Your task to perform on an android device: Go to sound settings Image 0: 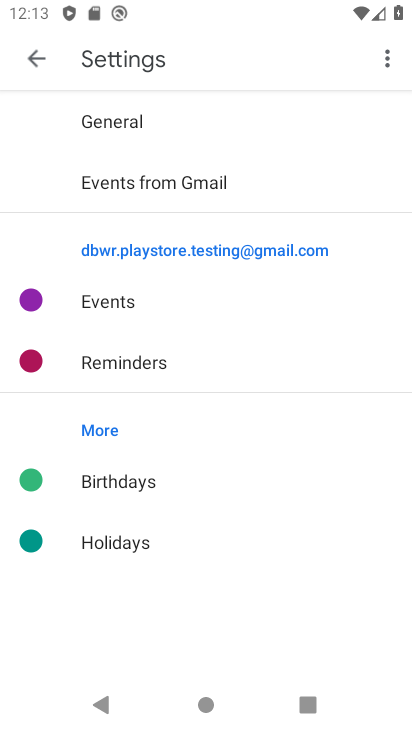
Step 0: press home button
Your task to perform on an android device: Go to sound settings Image 1: 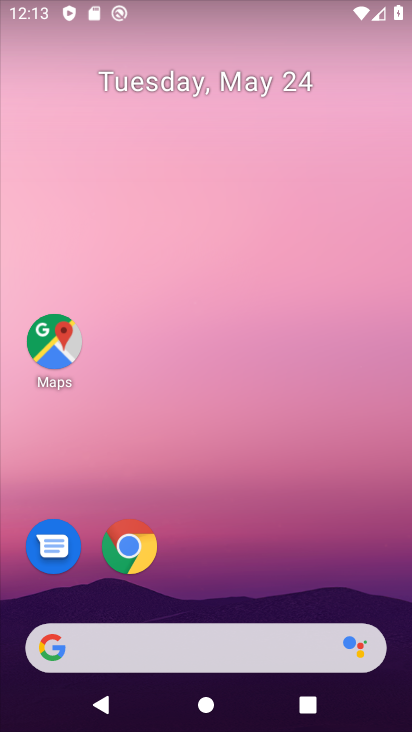
Step 1: drag from (255, 559) to (252, 100)
Your task to perform on an android device: Go to sound settings Image 2: 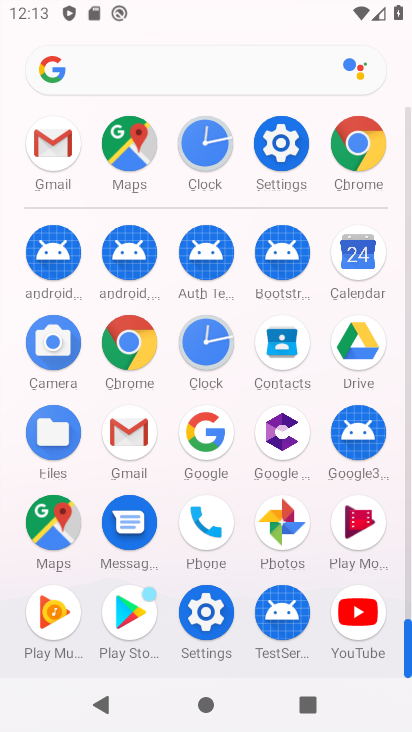
Step 2: click (275, 122)
Your task to perform on an android device: Go to sound settings Image 3: 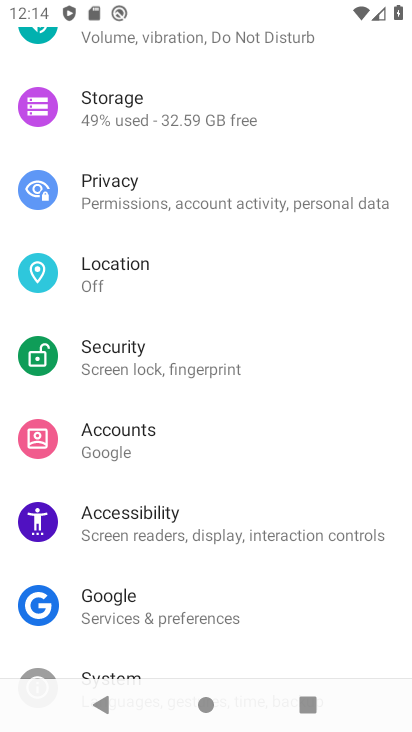
Step 3: drag from (307, 224) to (279, 719)
Your task to perform on an android device: Go to sound settings Image 4: 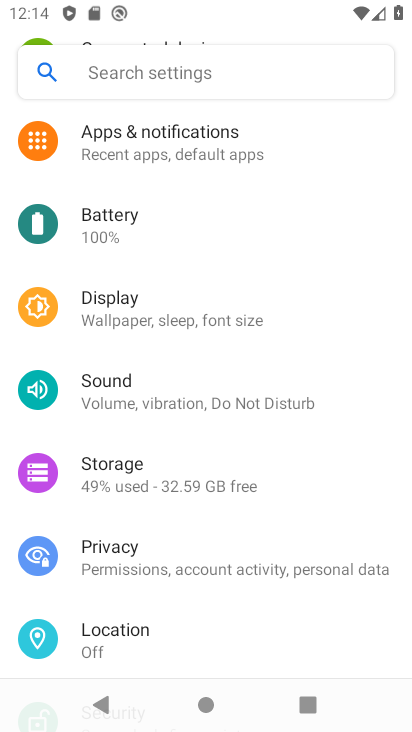
Step 4: drag from (214, 591) to (204, 434)
Your task to perform on an android device: Go to sound settings Image 5: 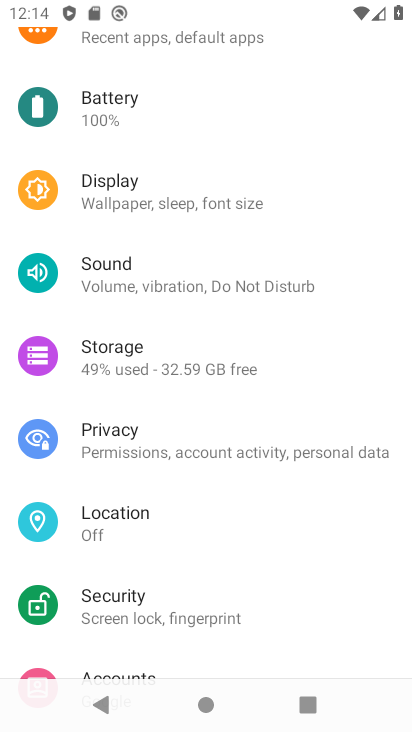
Step 5: click (196, 274)
Your task to perform on an android device: Go to sound settings Image 6: 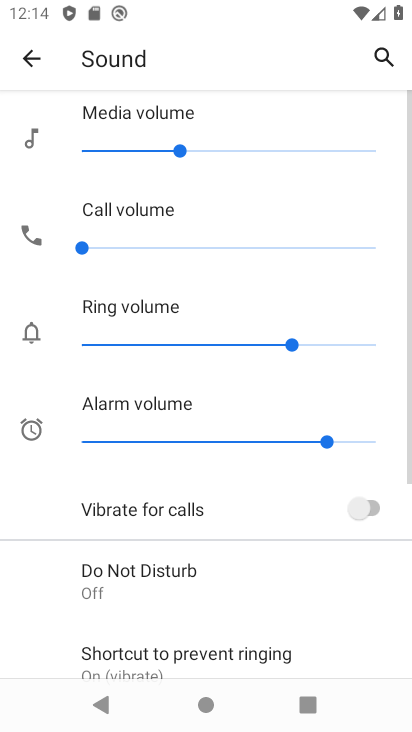
Step 6: task complete